Your task to perform on an android device: Open the web browser Image 0: 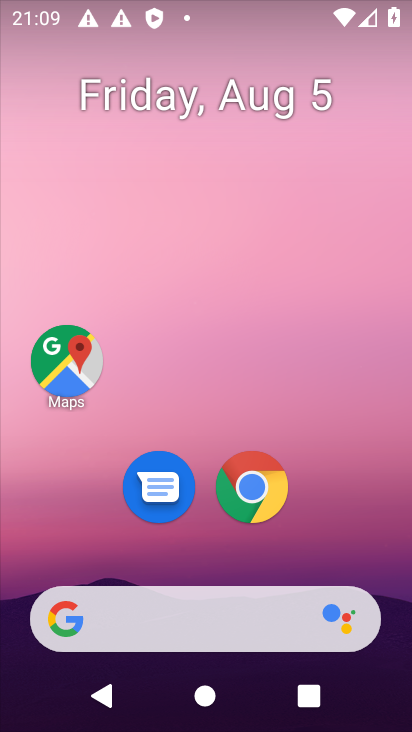
Step 0: click (205, 598)
Your task to perform on an android device: Open the web browser Image 1: 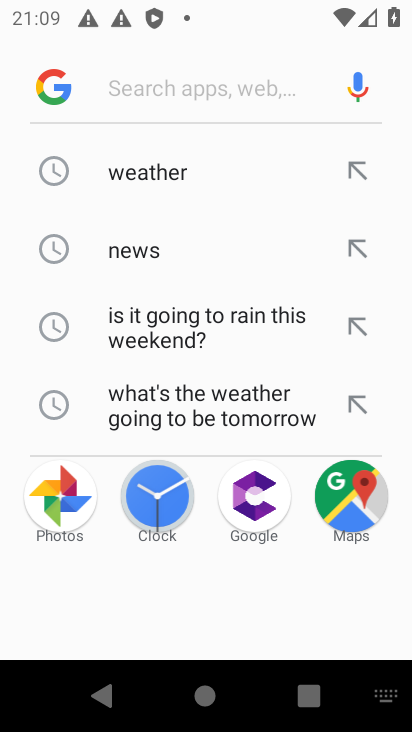
Step 1: task complete